Your task to perform on an android device: make emails show in primary in the gmail app Image 0: 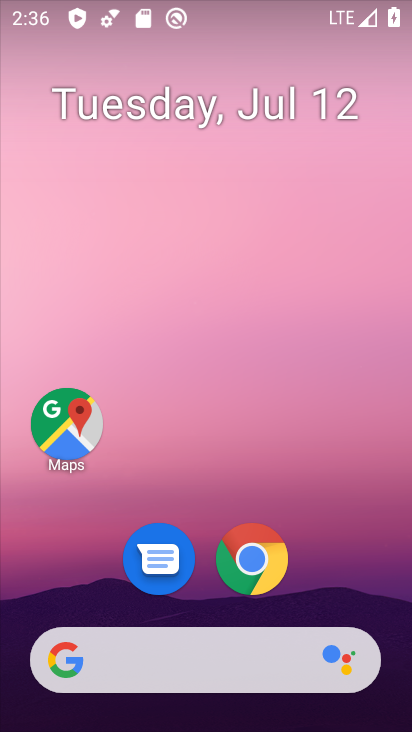
Step 0: drag from (373, 577) to (358, 301)
Your task to perform on an android device: make emails show in primary in the gmail app Image 1: 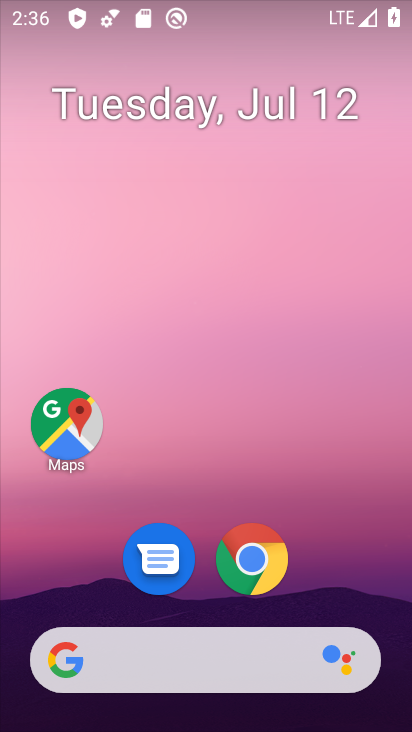
Step 1: drag from (331, 556) to (365, 241)
Your task to perform on an android device: make emails show in primary in the gmail app Image 2: 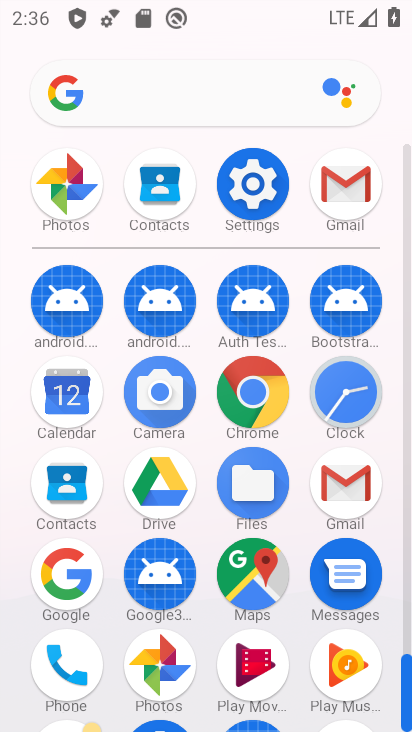
Step 2: click (350, 494)
Your task to perform on an android device: make emails show in primary in the gmail app Image 3: 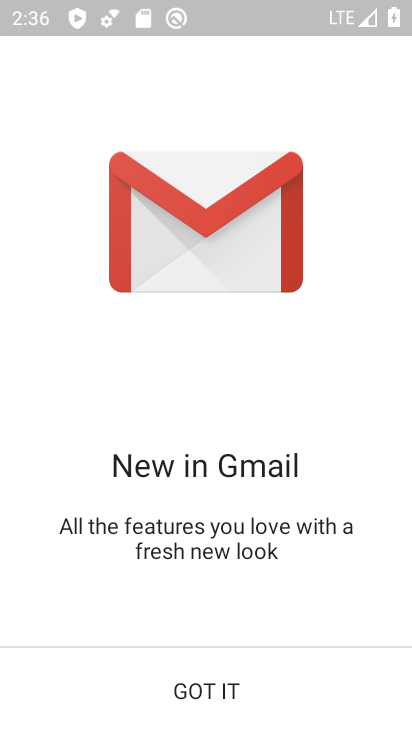
Step 3: click (268, 696)
Your task to perform on an android device: make emails show in primary in the gmail app Image 4: 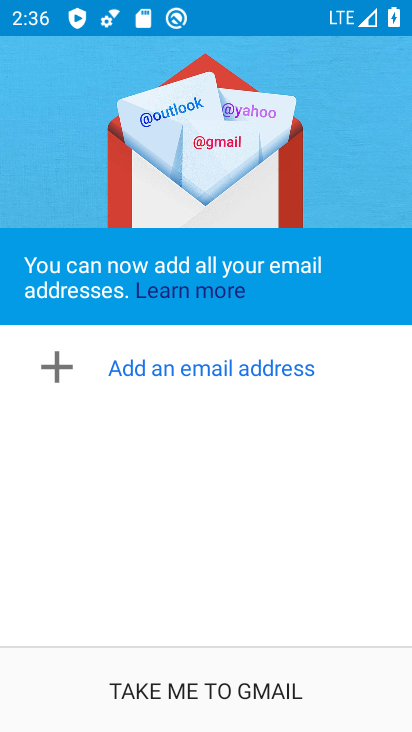
Step 4: click (269, 696)
Your task to perform on an android device: make emails show in primary in the gmail app Image 5: 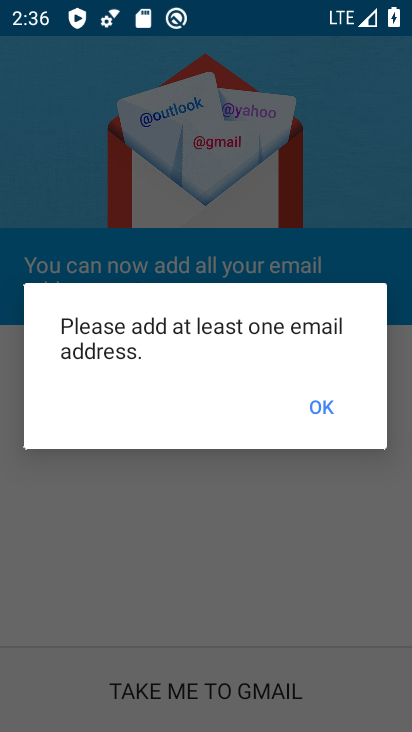
Step 5: task complete